Your task to perform on an android device: delete the emails in spam in the gmail app Image 0: 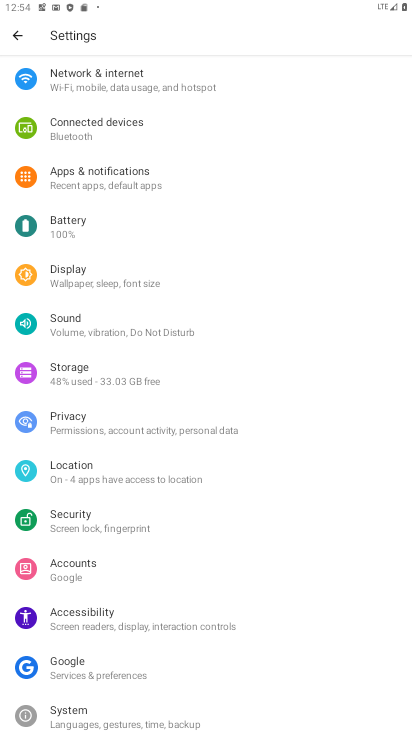
Step 0: press home button
Your task to perform on an android device: delete the emails in spam in the gmail app Image 1: 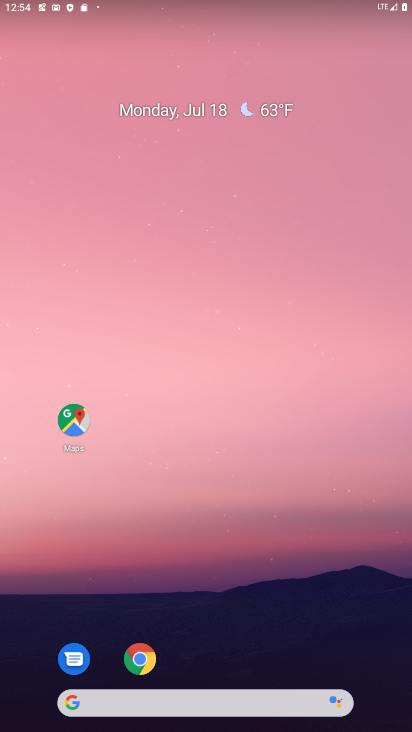
Step 1: drag from (191, 687) to (262, 244)
Your task to perform on an android device: delete the emails in spam in the gmail app Image 2: 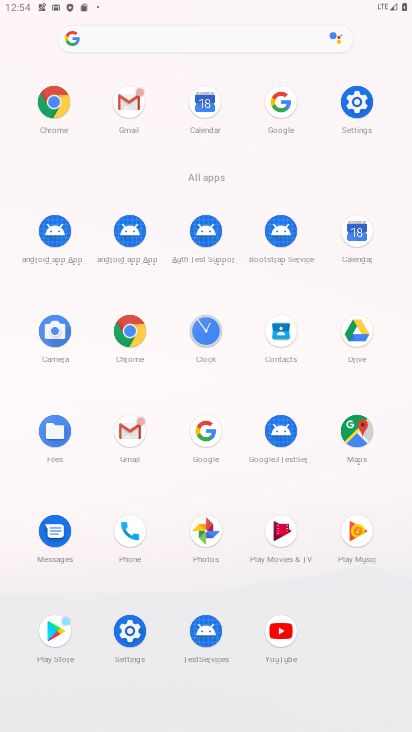
Step 2: click (125, 429)
Your task to perform on an android device: delete the emails in spam in the gmail app Image 3: 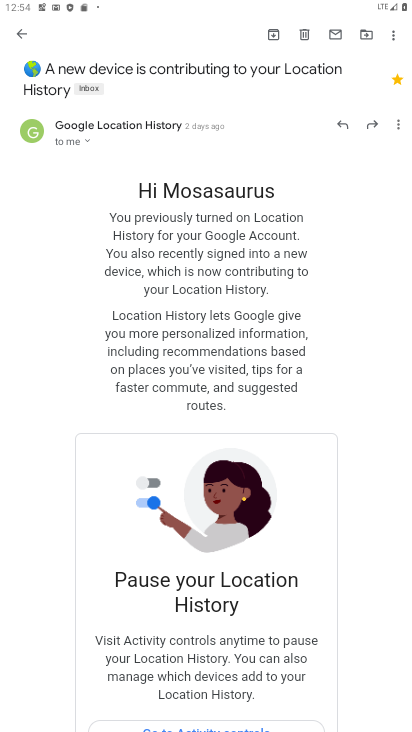
Step 3: click (17, 31)
Your task to perform on an android device: delete the emails in spam in the gmail app Image 4: 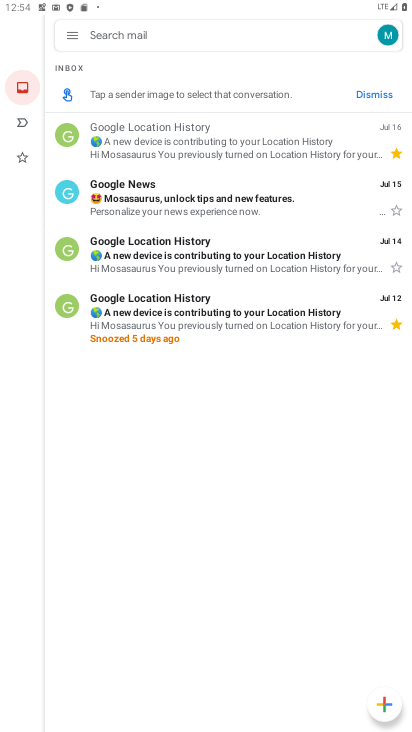
Step 4: click (68, 33)
Your task to perform on an android device: delete the emails in spam in the gmail app Image 5: 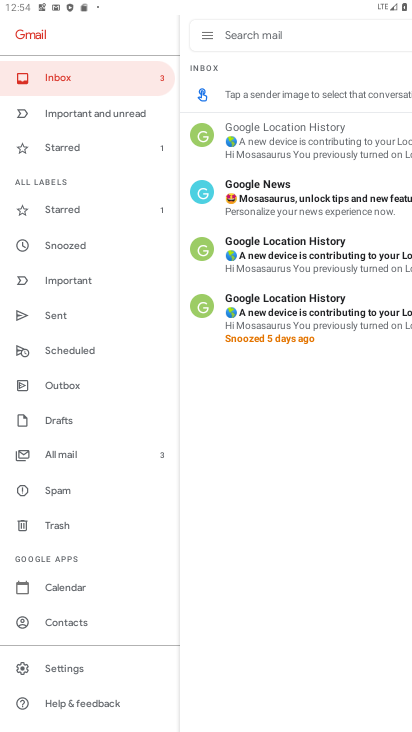
Step 5: click (75, 494)
Your task to perform on an android device: delete the emails in spam in the gmail app Image 6: 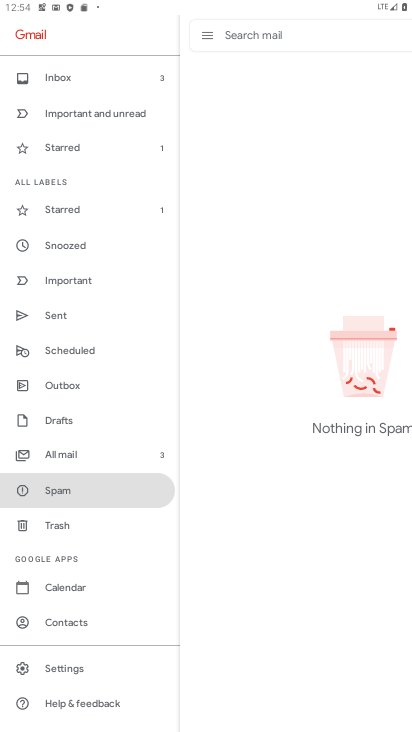
Step 6: task complete